Your task to perform on an android device: Open Android settings Image 0: 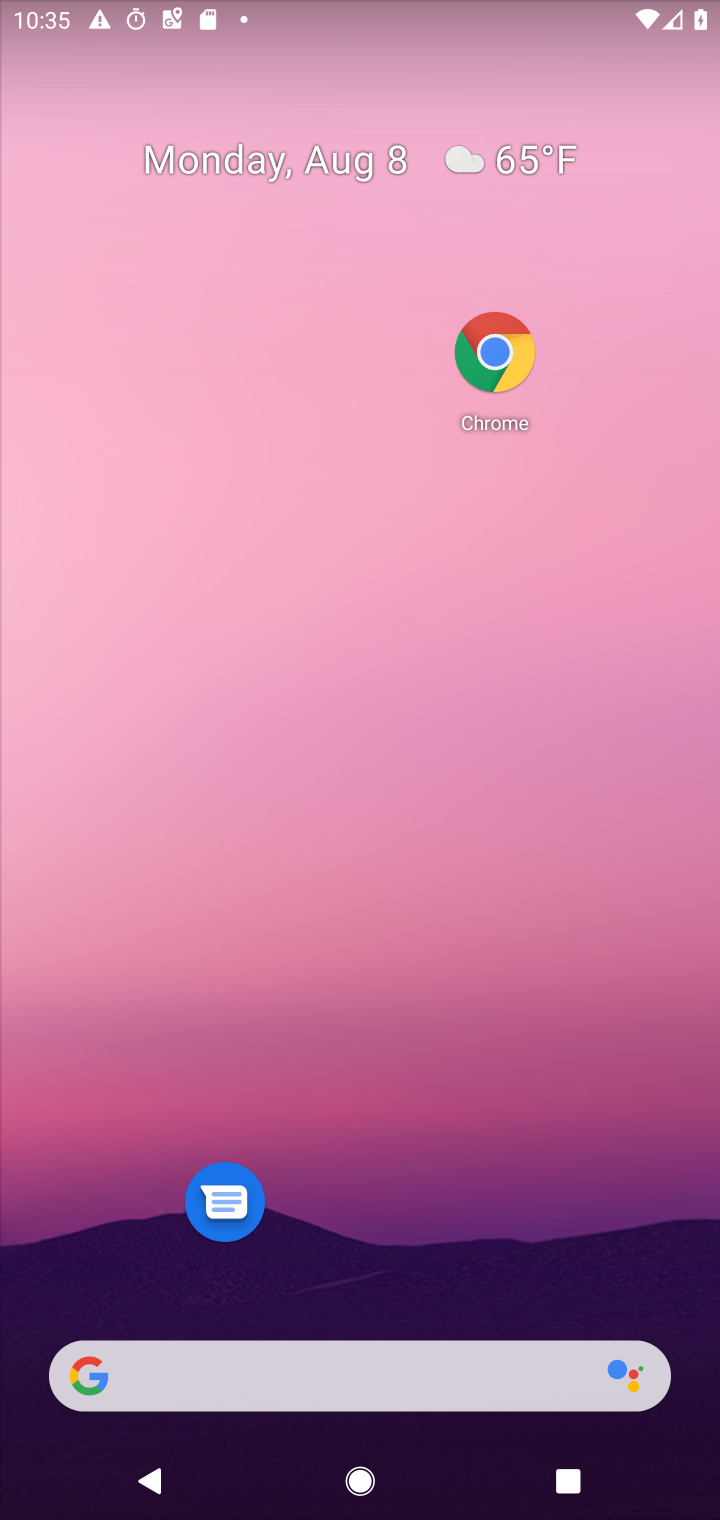
Step 0: drag from (358, 1288) to (316, 138)
Your task to perform on an android device: Open Android settings Image 1: 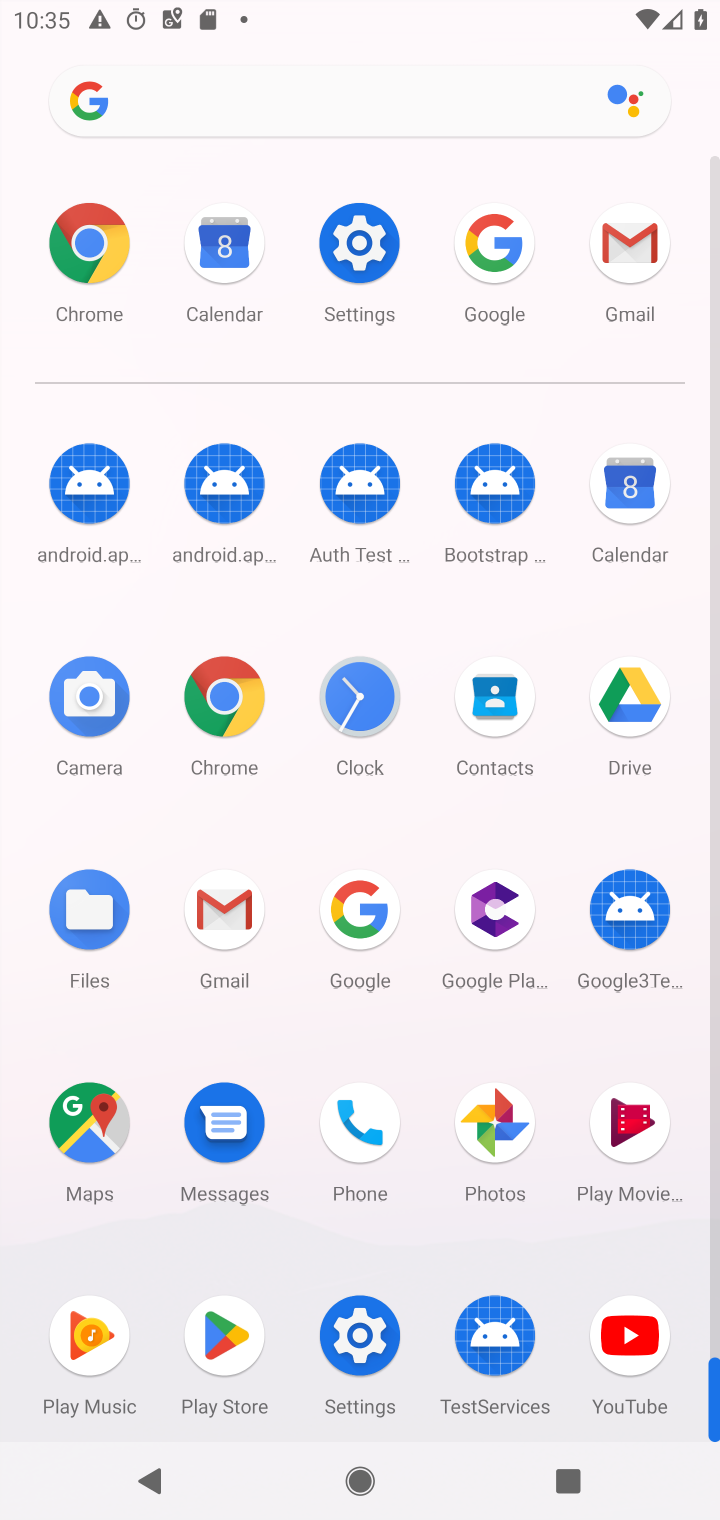
Step 1: click (366, 282)
Your task to perform on an android device: Open Android settings Image 2: 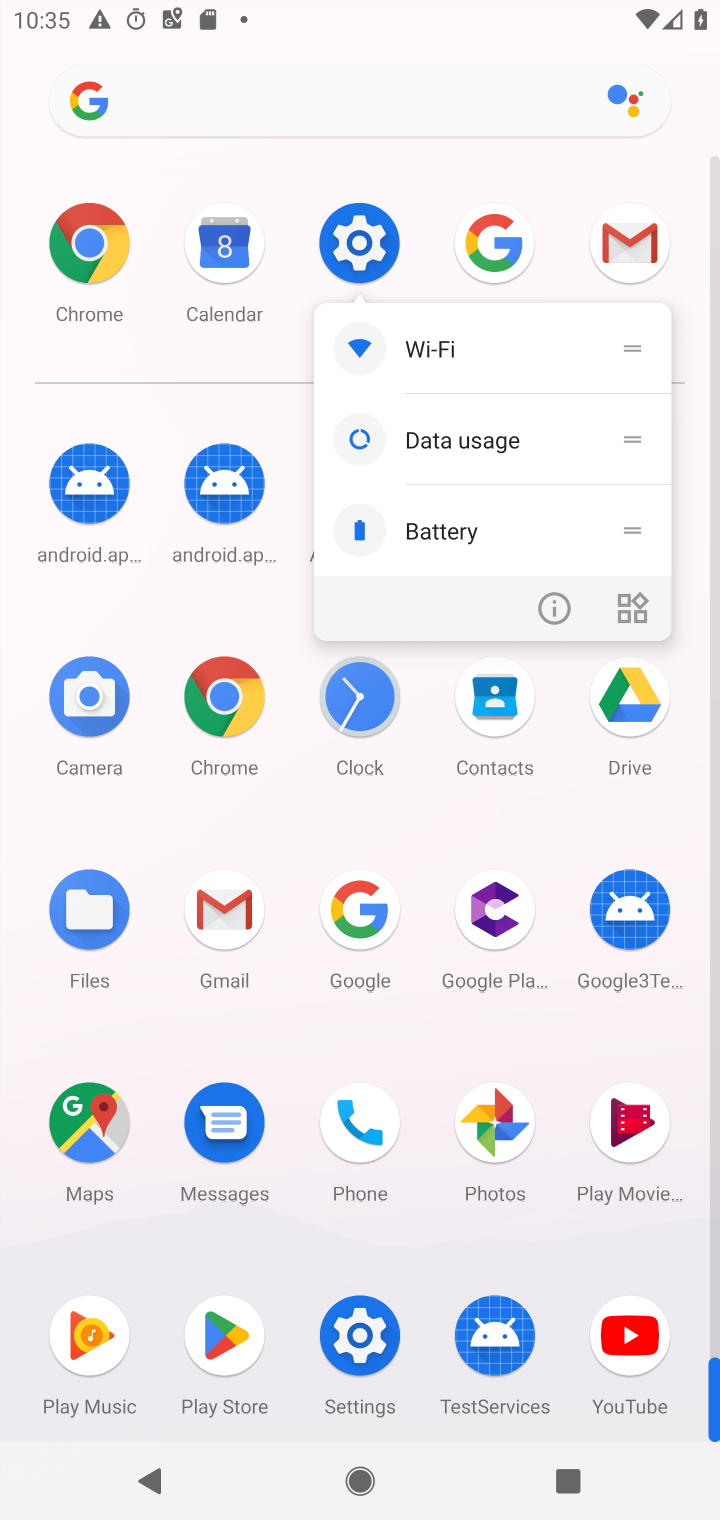
Step 2: click (370, 240)
Your task to perform on an android device: Open Android settings Image 3: 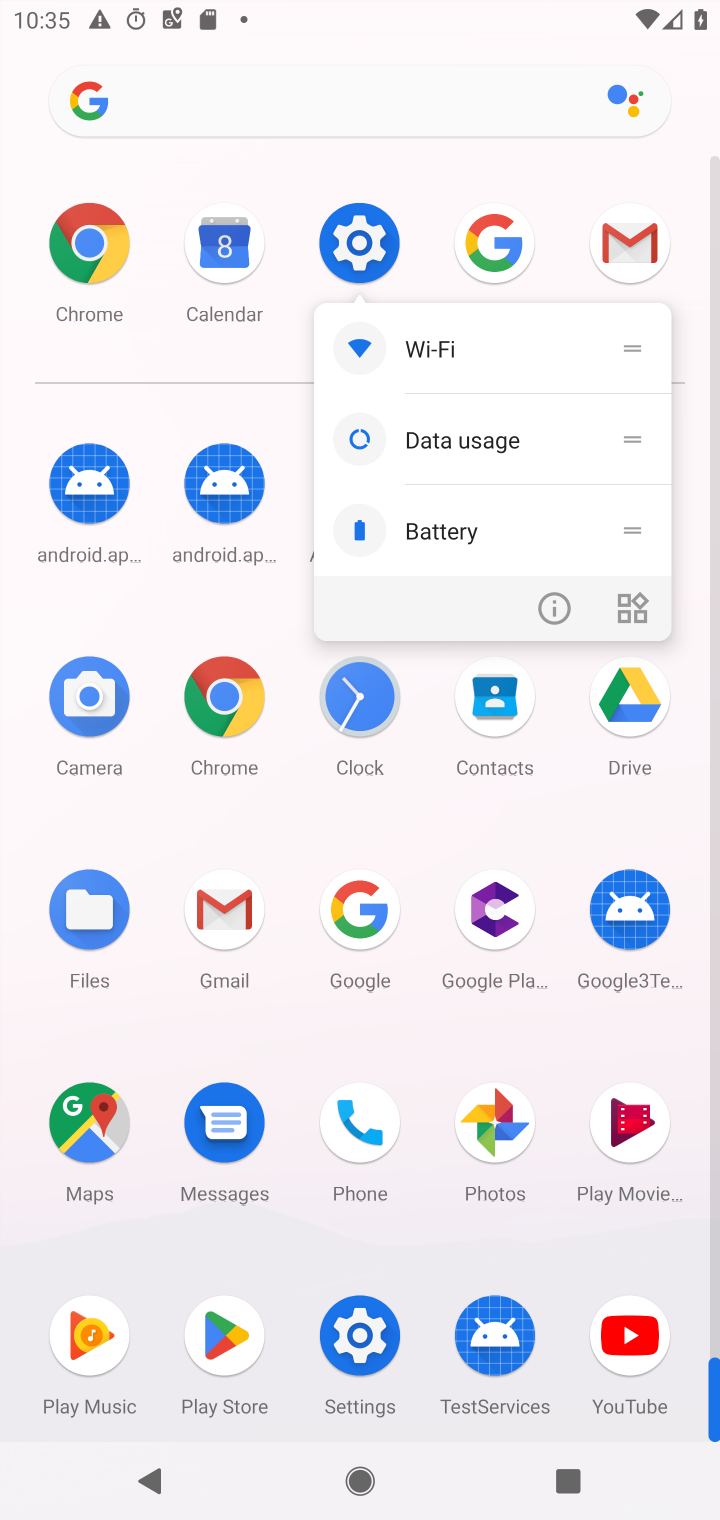
Step 3: click (367, 235)
Your task to perform on an android device: Open Android settings Image 4: 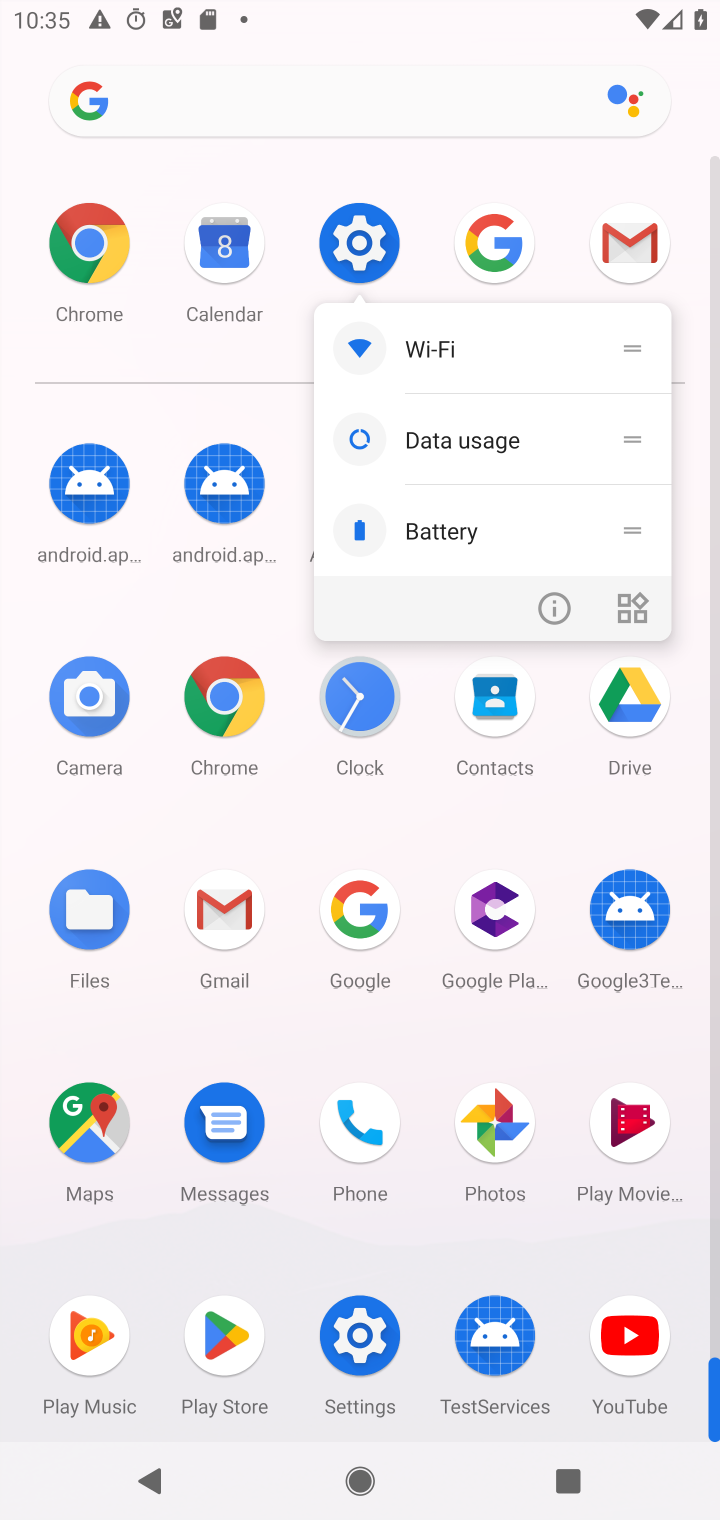
Step 4: click (365, 226)
Your task to perform on an android device: Open Android settings Image 5: 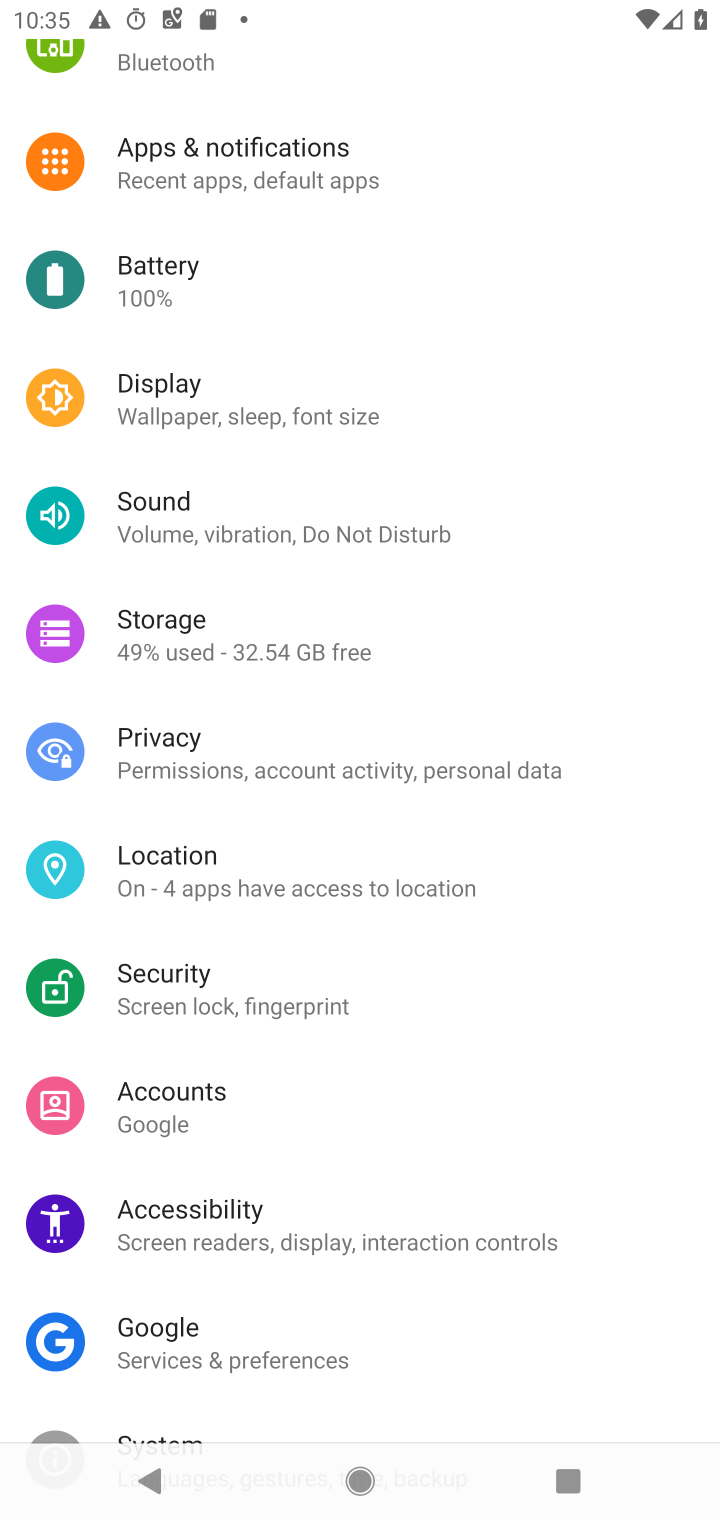
Step 5: drag from (301, 1010) to (235, 226)
Your task to perform on an android device: Open Android settings Image 6: 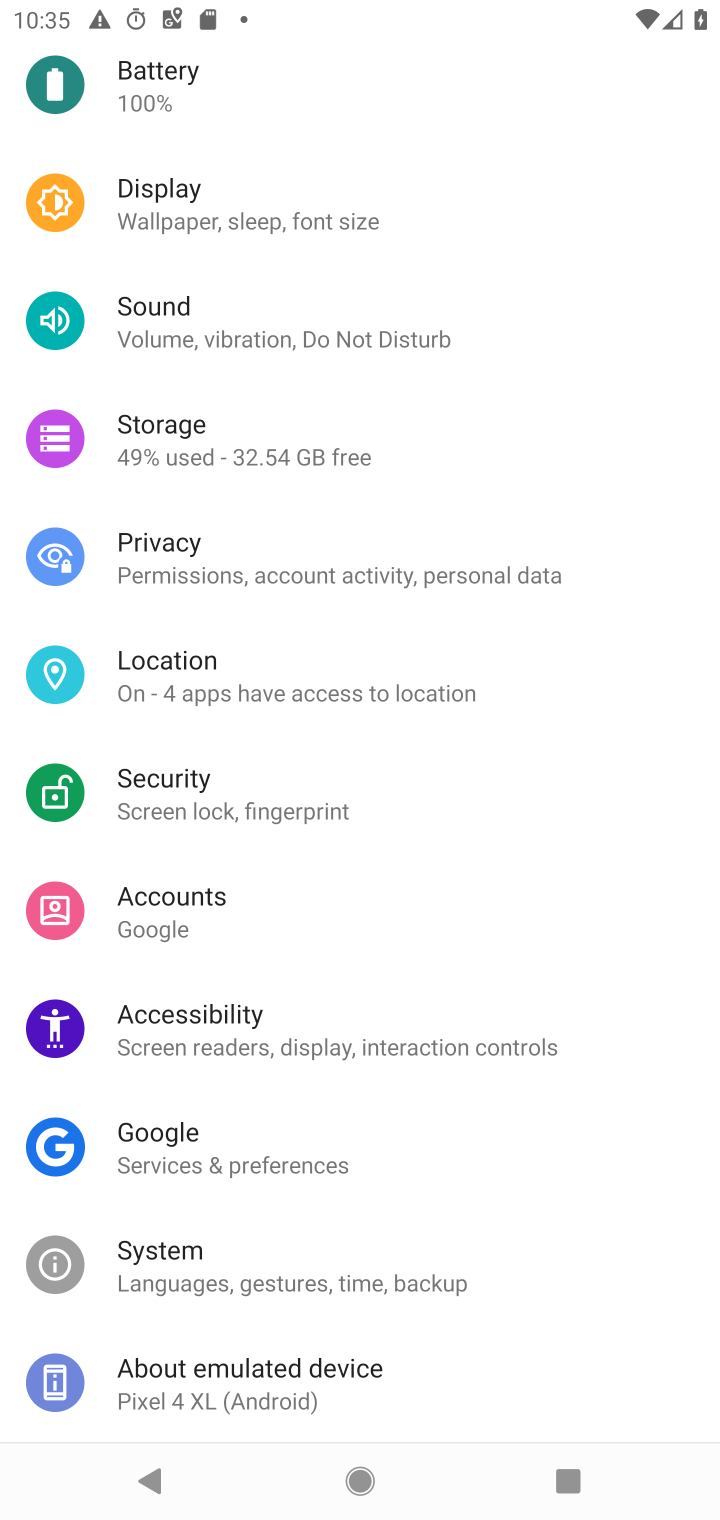
Step 6: drag from (257, 1234) to (324, 346)
Your task to perform on an android device: Open Android settings Image 7: 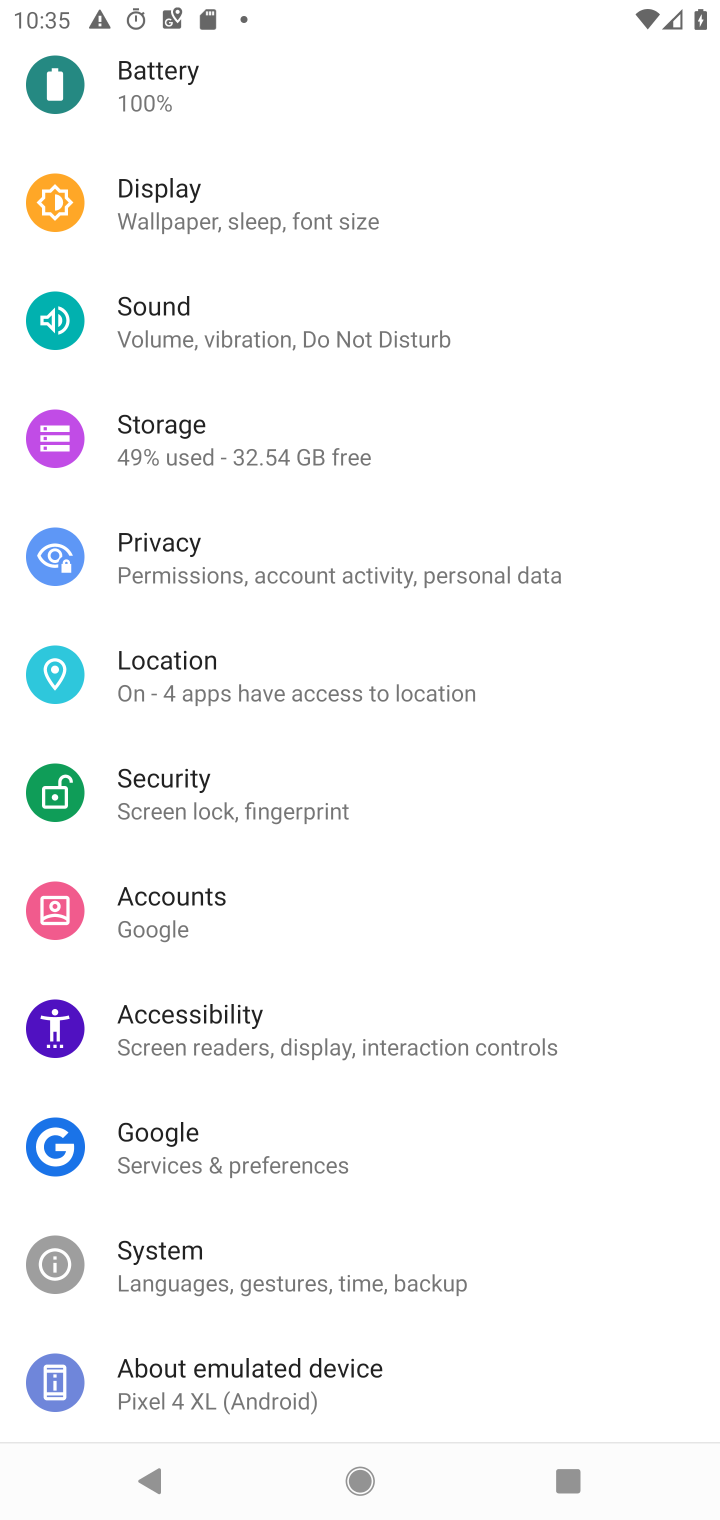
Step 7: click (279, 1373)
Your task to perform on an android device: Open Android settings Image 8: 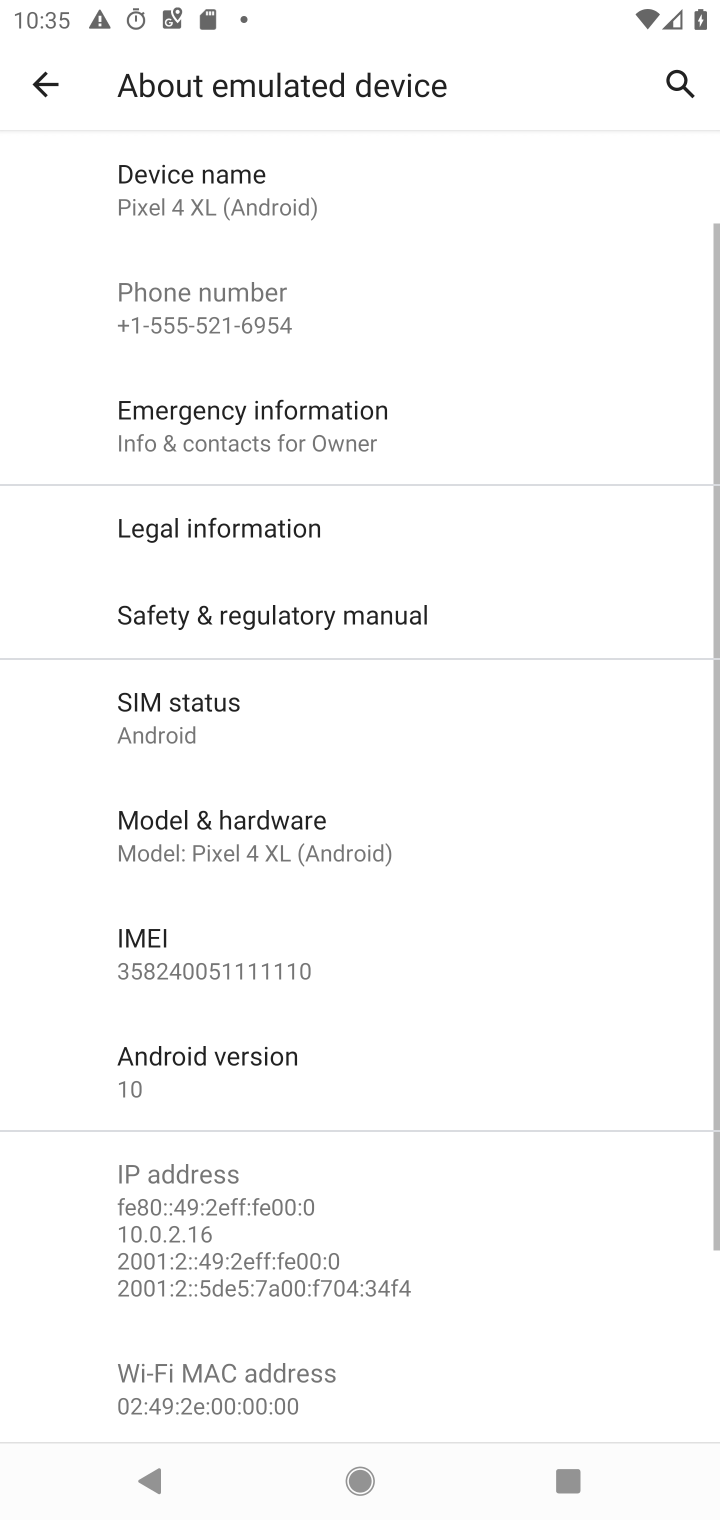
Step 8: click (226, 1085)
Your task to perform on an android device: Open Android settings Image 9: 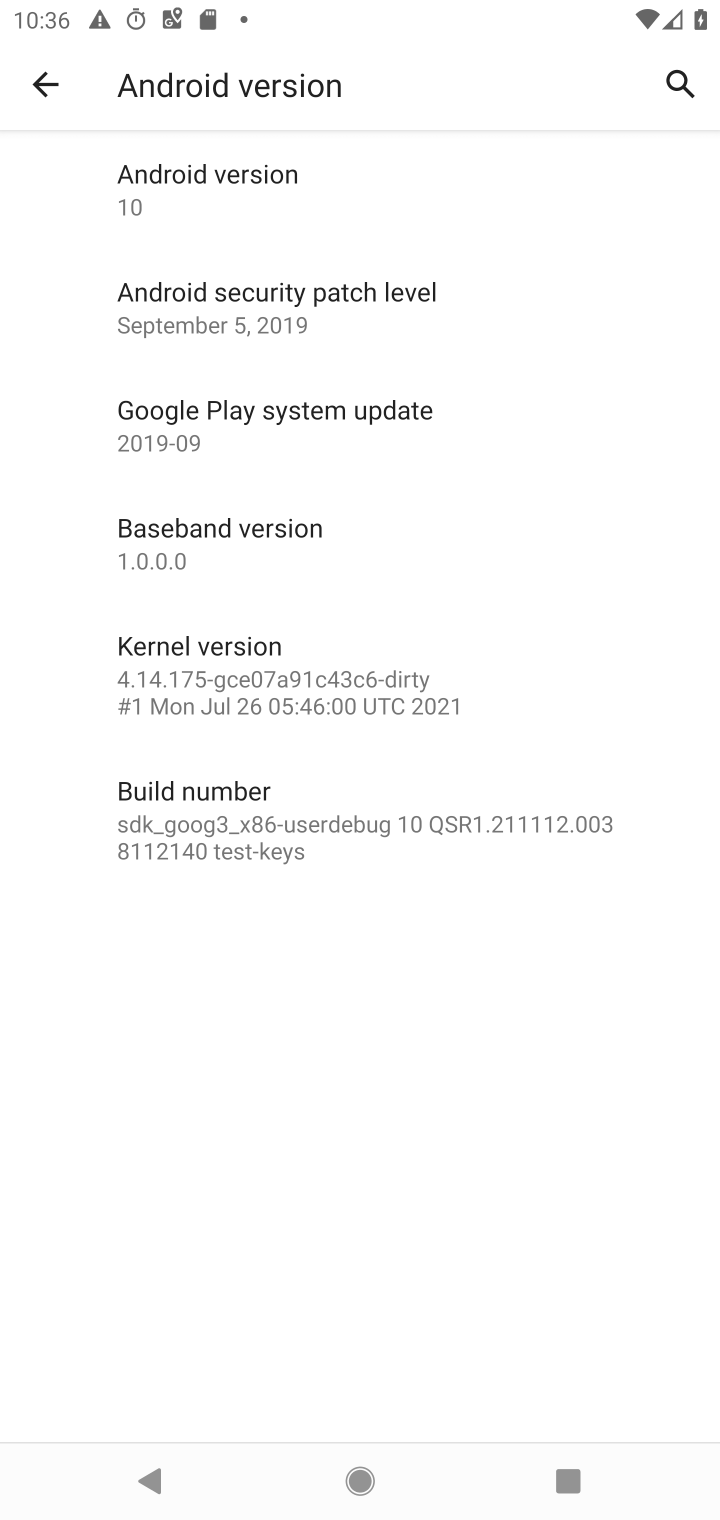
Step 9: task complete